Your task to perform on an android device: delete location history Image 0: 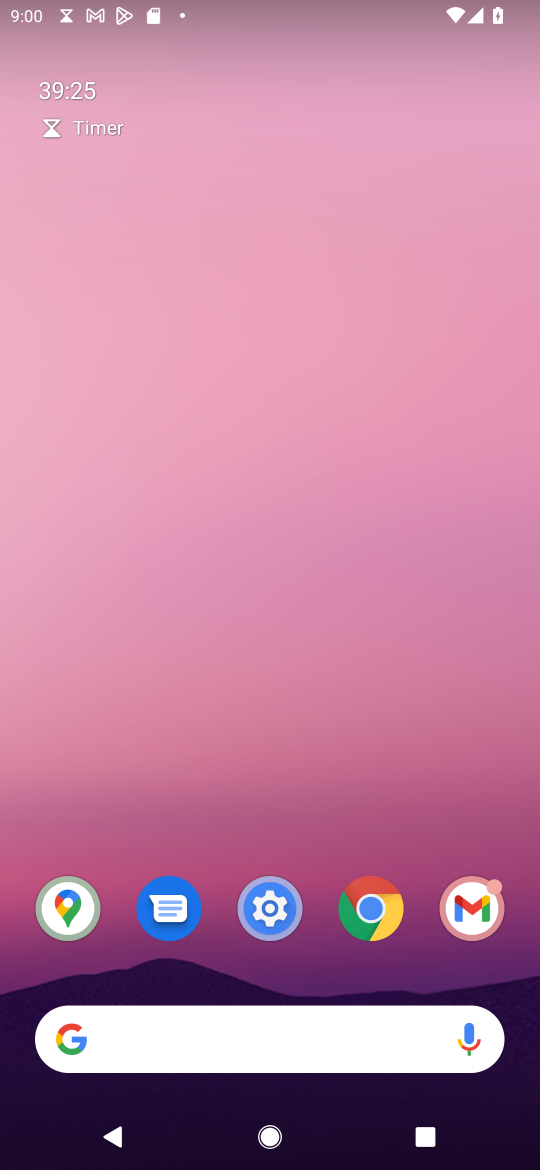
Step 0: drag from (281, 1015) to (275, 510)
Your task to perform on an android device: delete location history Image 1: 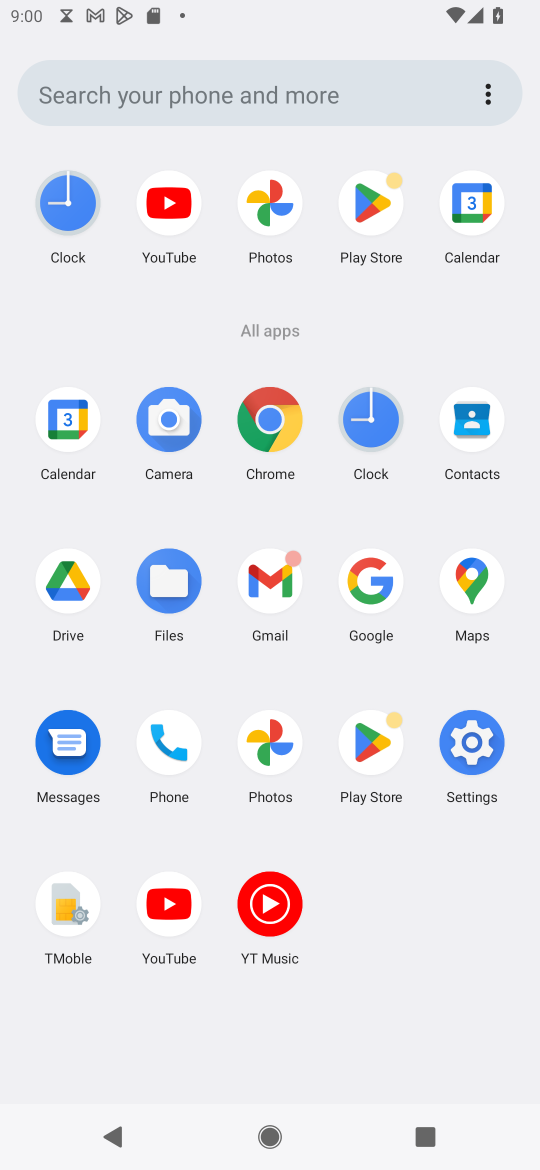
Step 1: click (455, 588)
Your task to perform on an android device: delete location history Image 2: 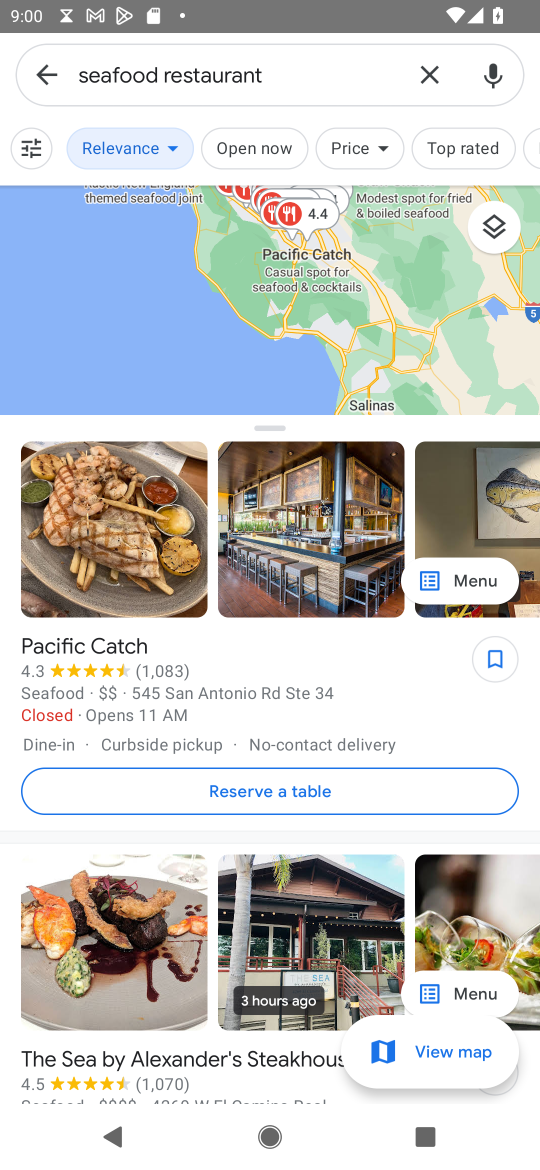
Step 2: click (49, 77)
Your task to perform on an android device: delete location history Image 3: 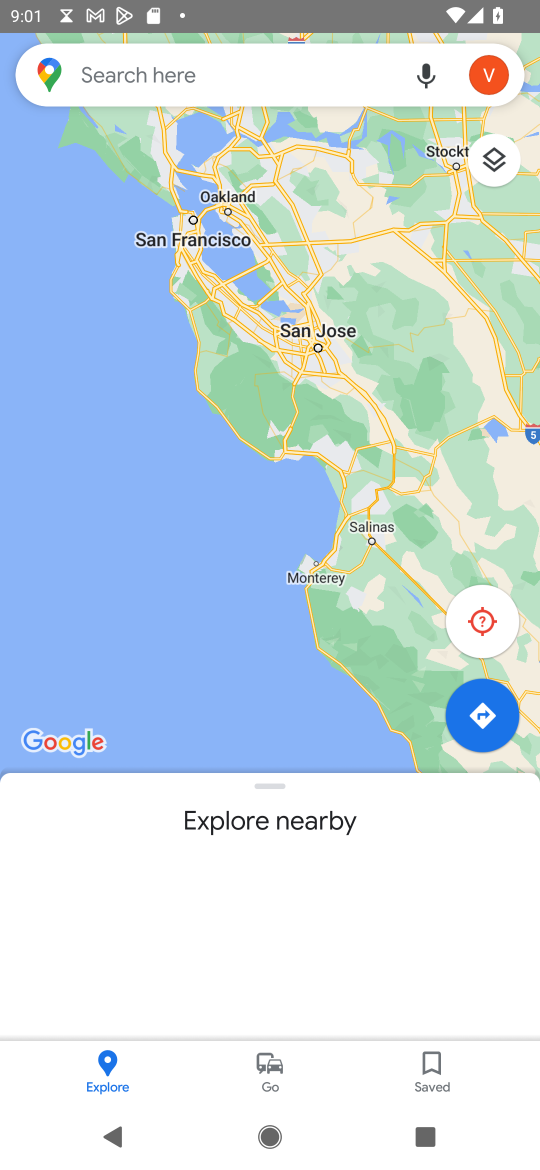
Step 3: click (486, 81)
Your task to perform on an android device: delete location history Image 4: 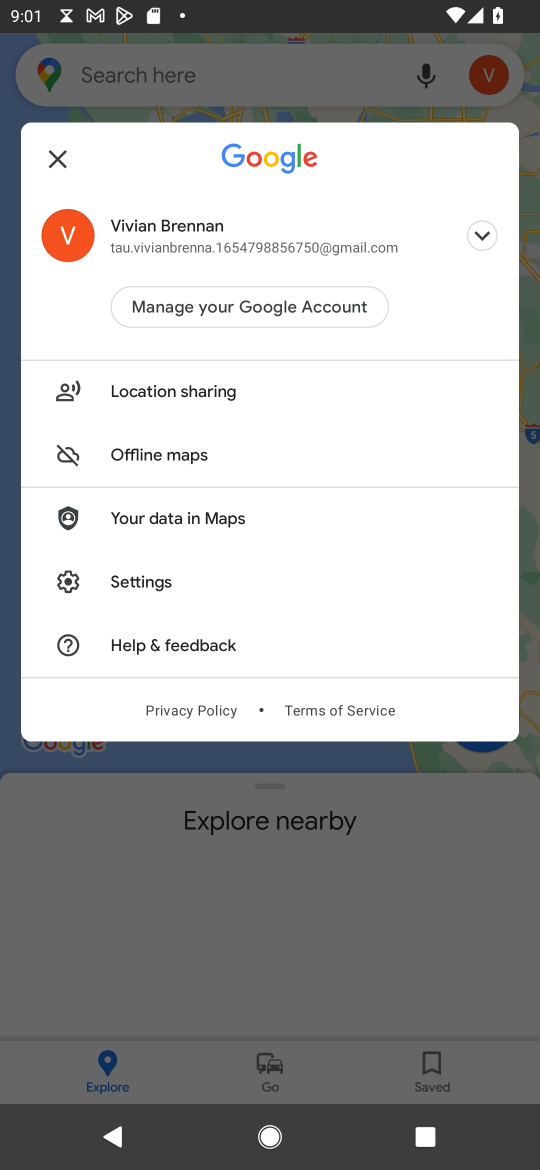
Step 4: click (179, 573)
Your task to perform on an android device: delete location history Image 5: 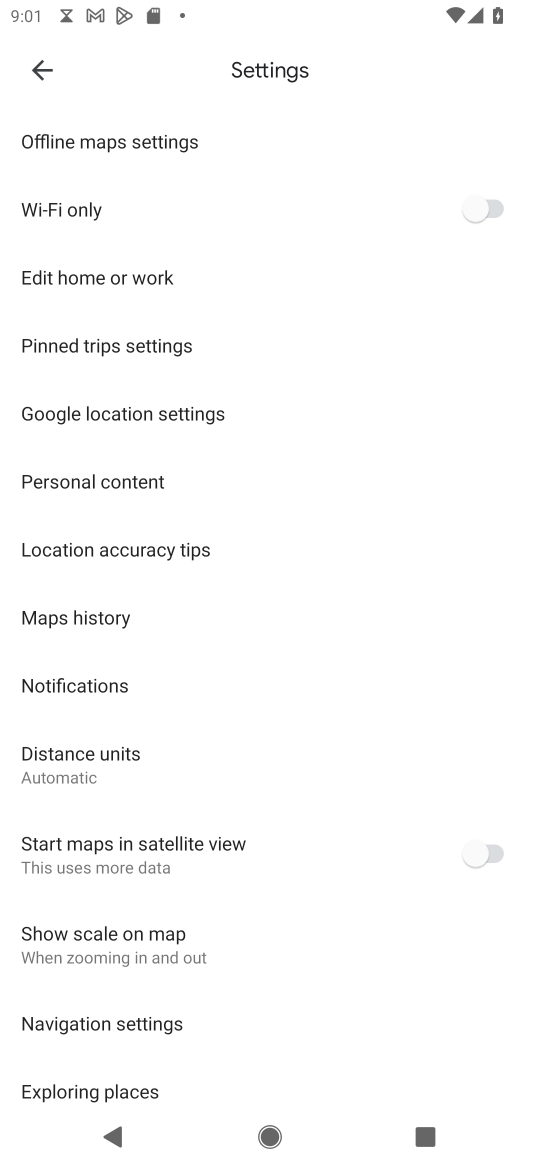
Step 5: click (138, 627)
Your task to perform on an android device: delete location history Image 6: 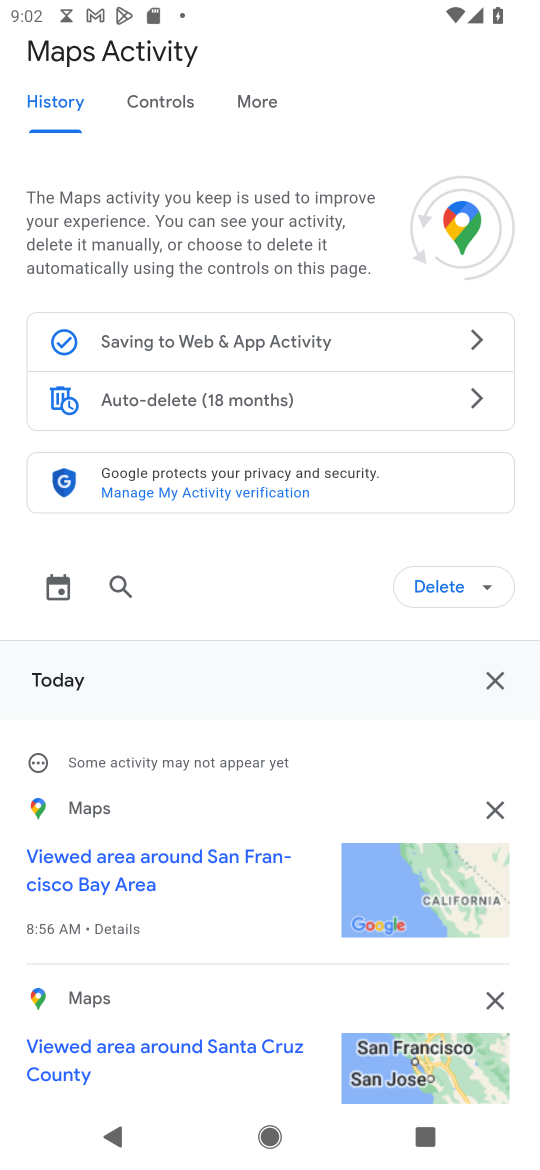
Step 6: click (466, 580)
Your task to perform on an android device: delete location history Image 7: 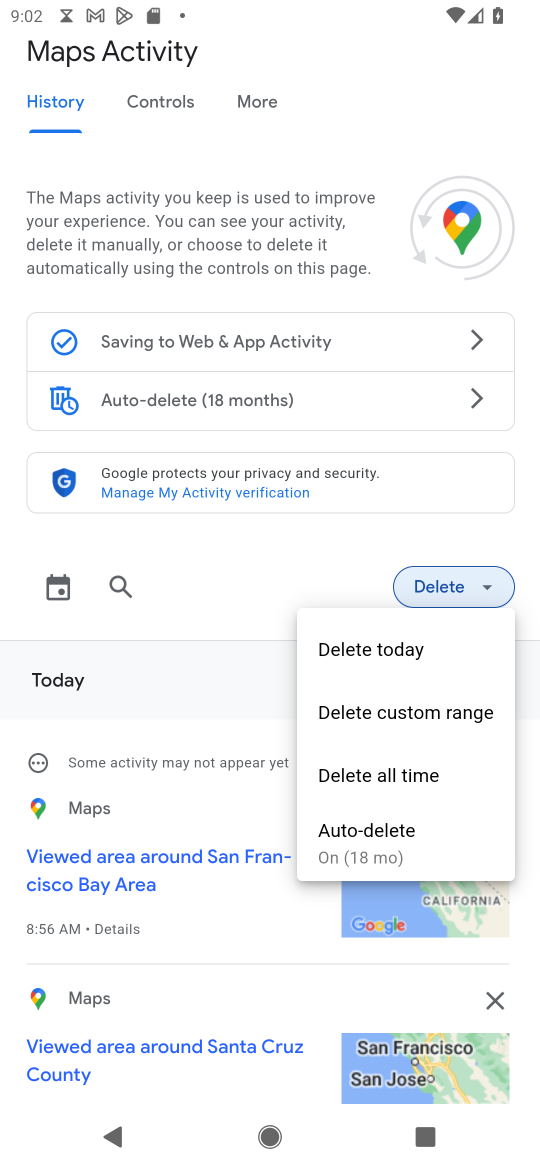
Step 7: click (428, 661)
Your task to perform on an android device: delete location history Image 8: 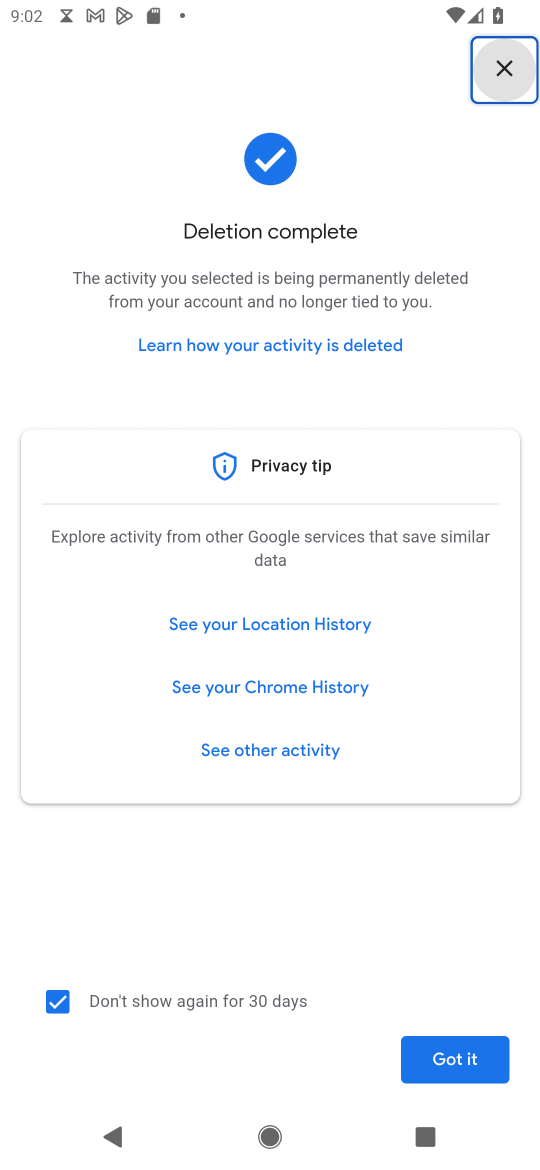
Step 8: click (499, 1069)
Your task to perform on an android device: delete location history Image 9: 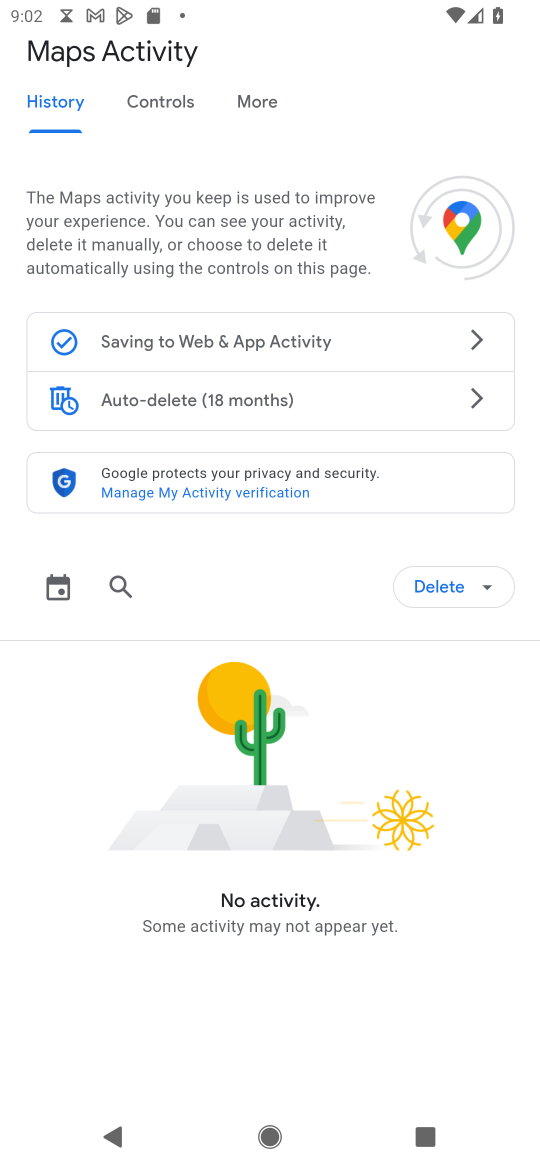
Step 9: task complete